Your task to perform on an android device: turn off location history Image 0: 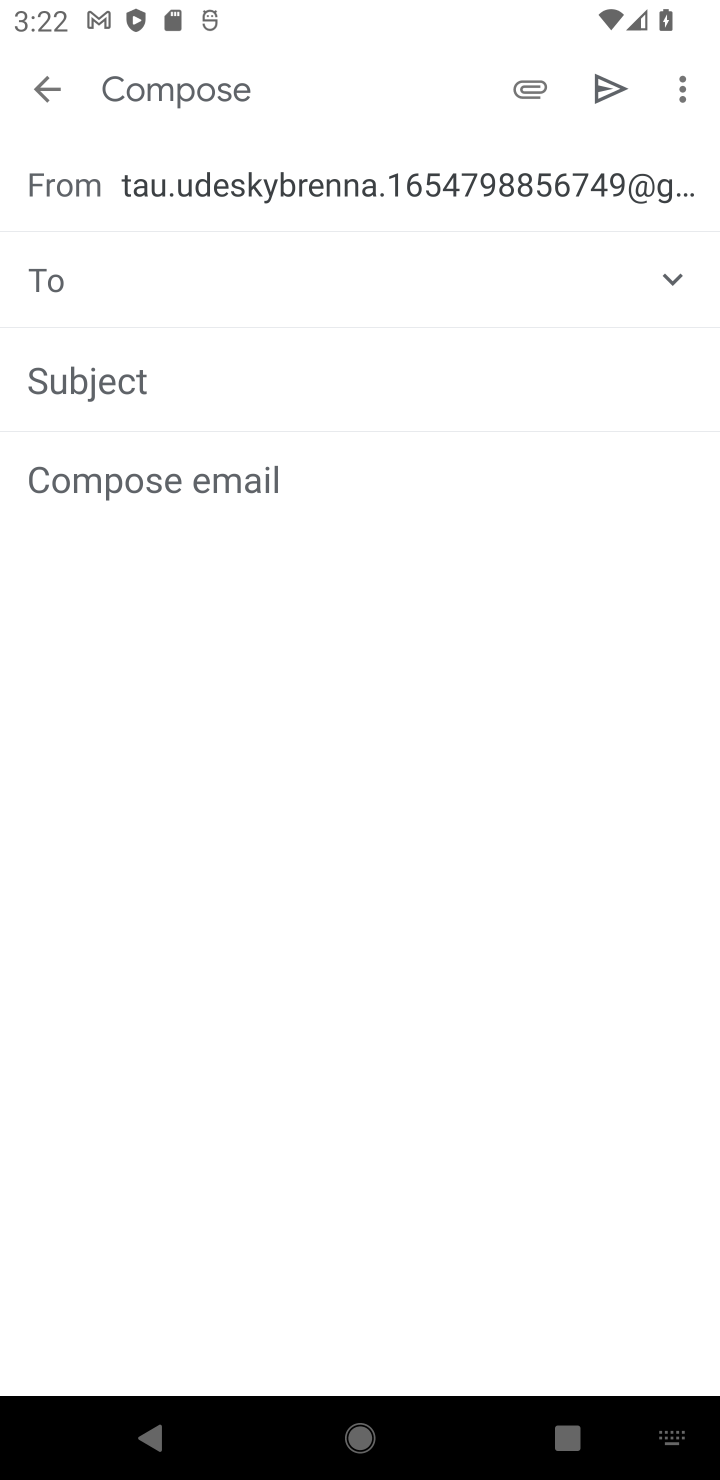
Step 0: press home button
Your task to perform on an android device: turn off location history Image 1: 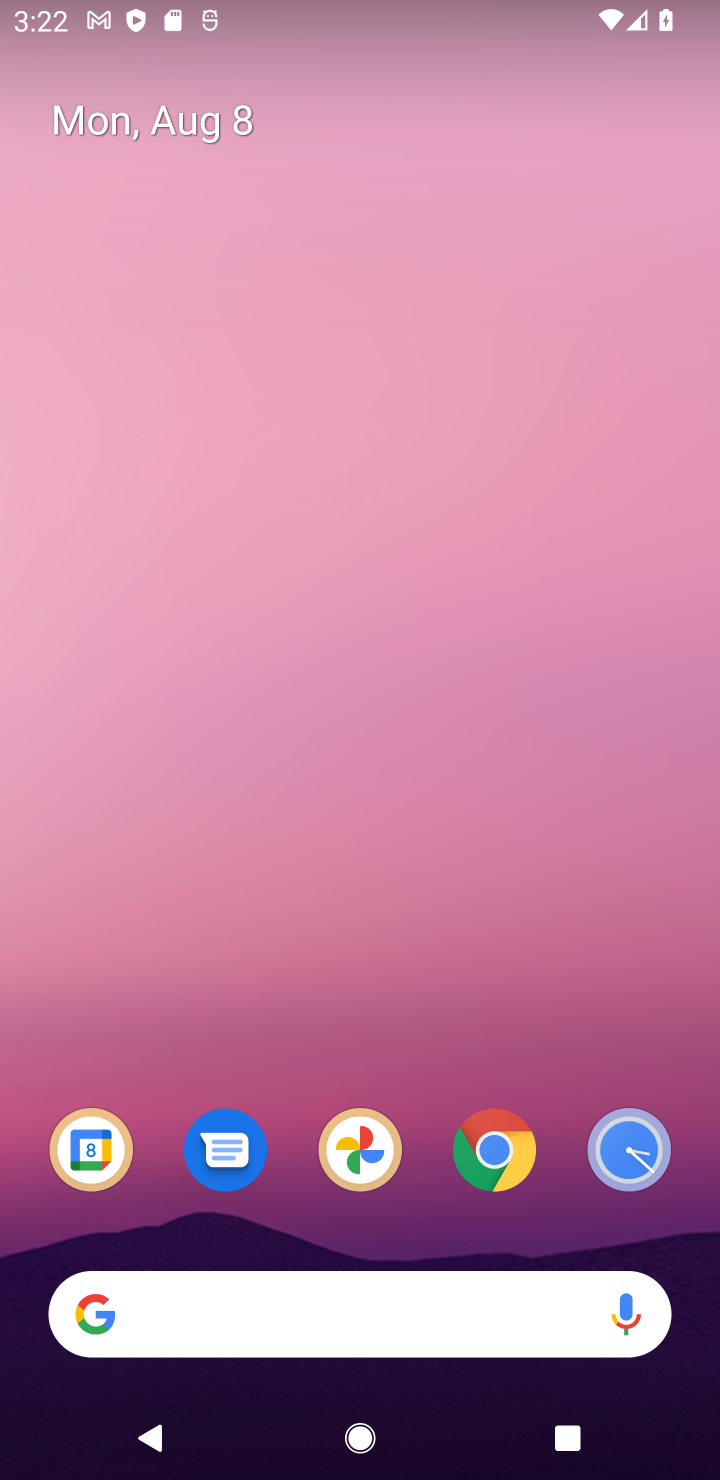
Step 1: drag from (410, 1226) to (324, 330)
Your task to perform on an android device: turn off location history Image 2: 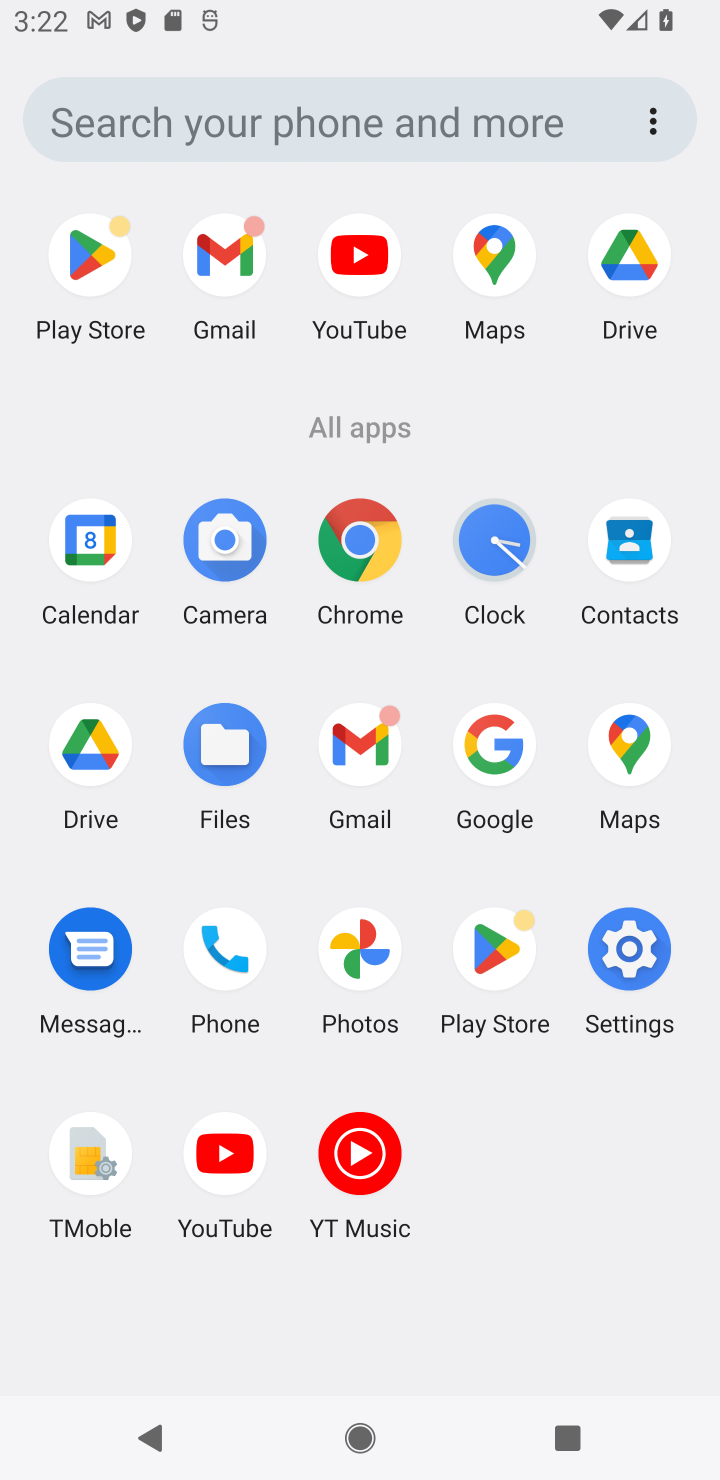
Step 2: click (642, 949)
Your task to perform on an android device: turn off location history Image 3: 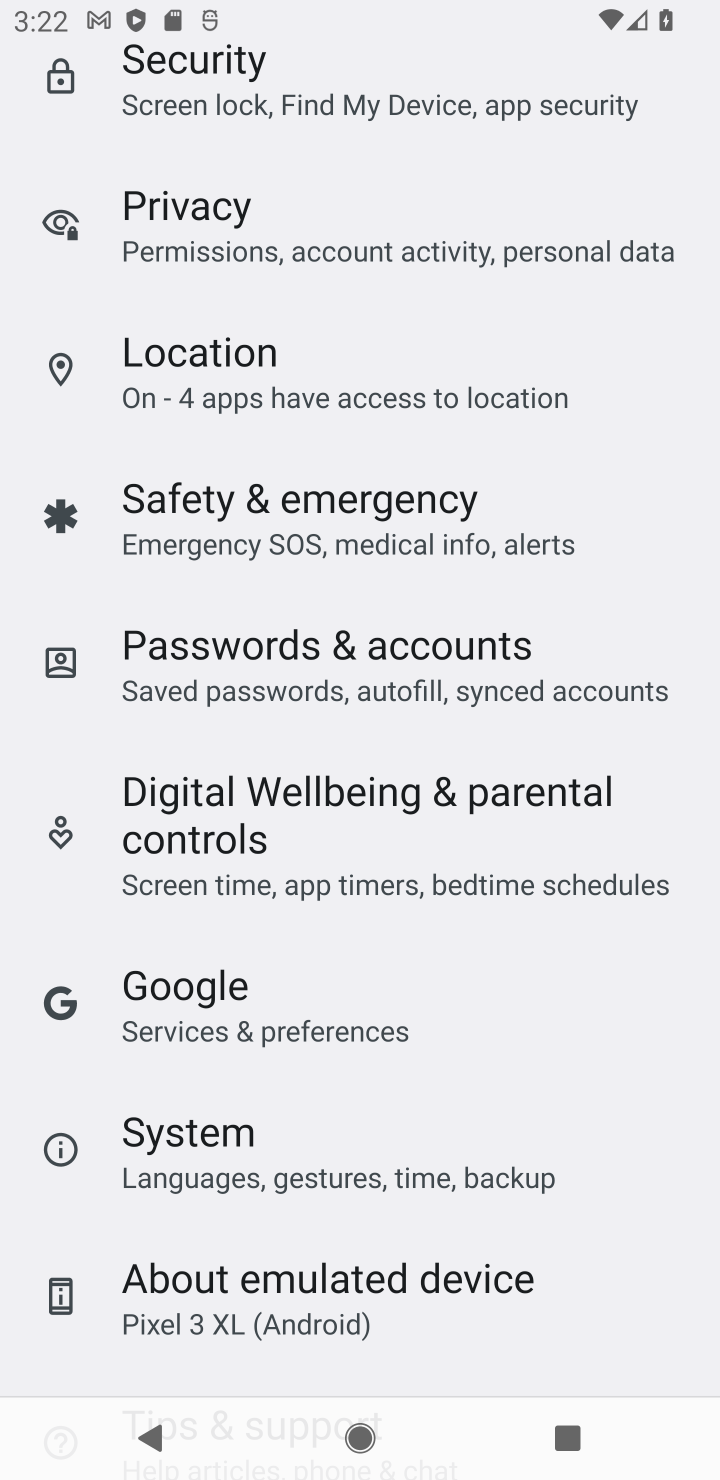
Step 3: click (294, 406)
Your task to perform on an android device: turn off location history Image 4: 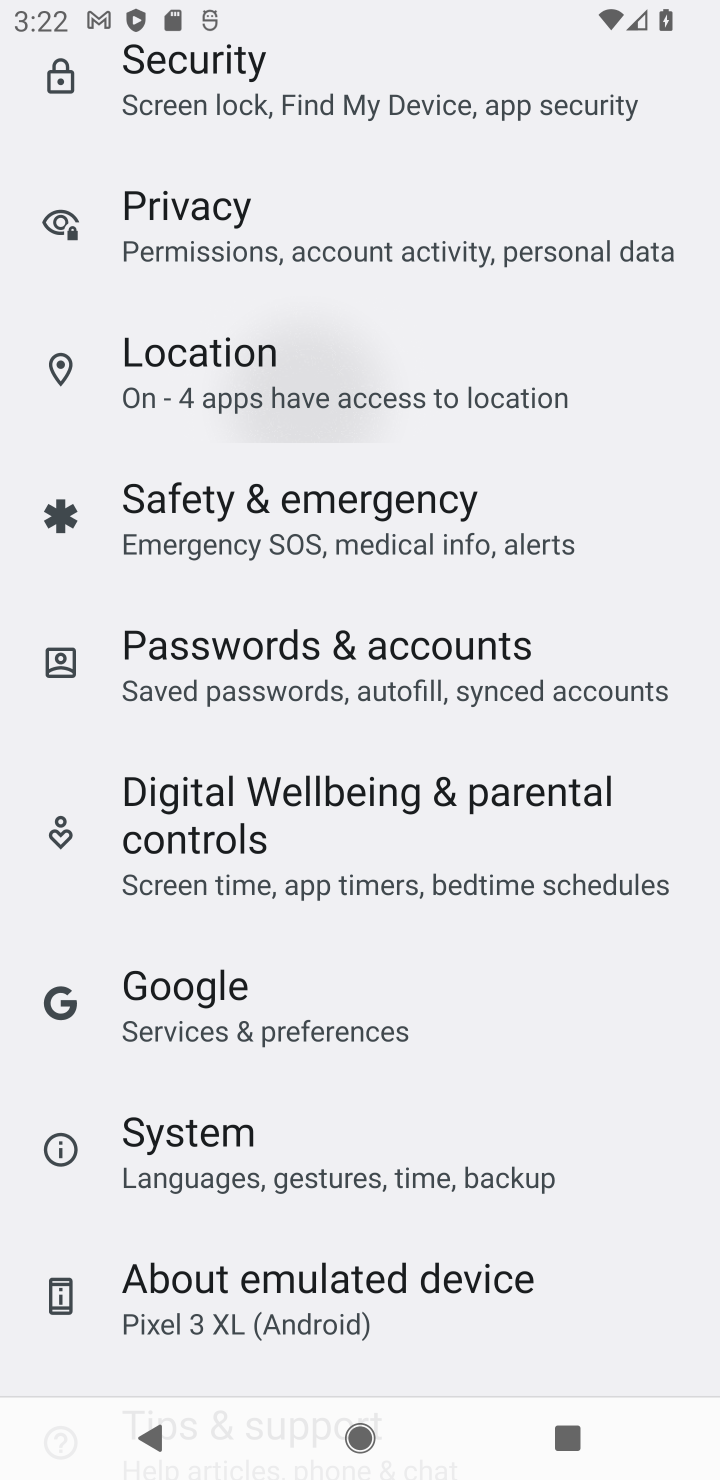
Step 4: task complete